Your task to perform on an android device: turn pop-ups off in chrome Image 0: 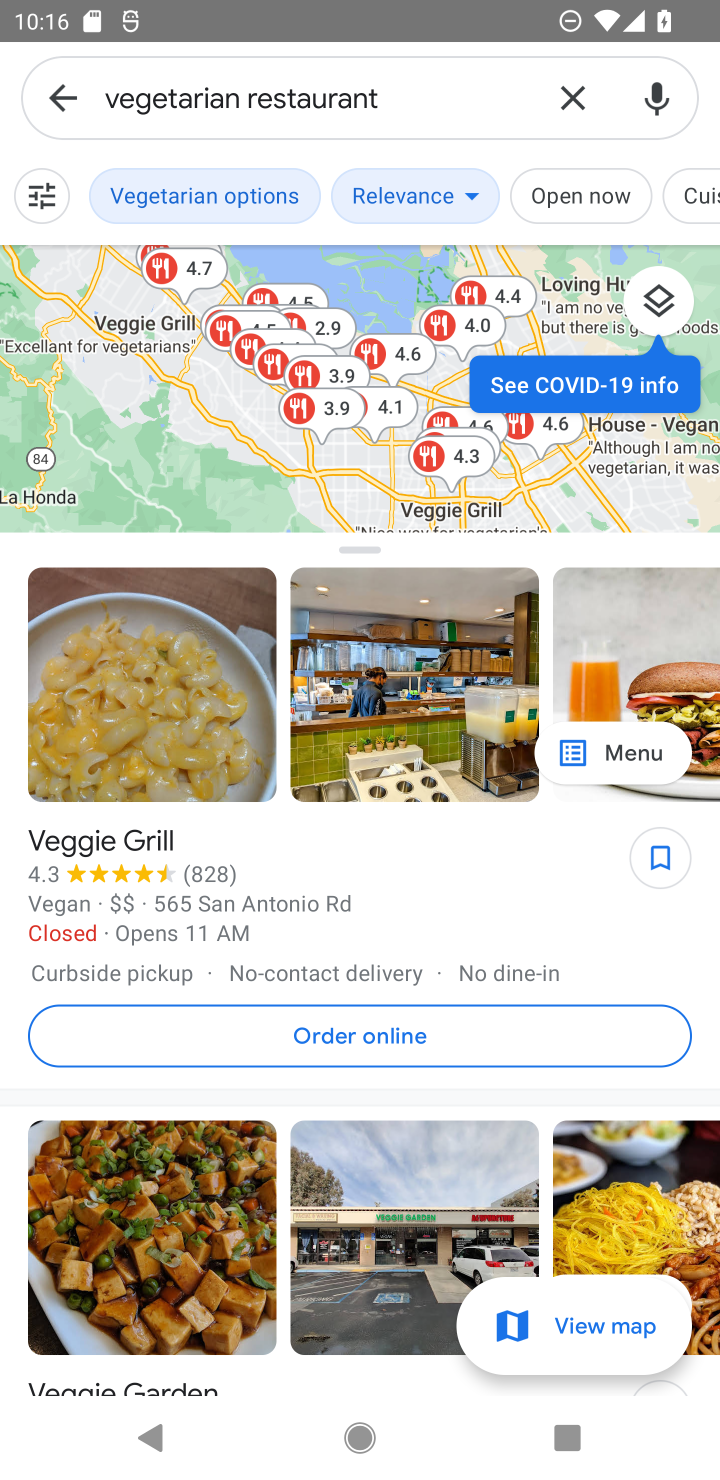
Step 0: press home button
Your task to perform on an android device: turn pop-ups off in chrome Image 1: 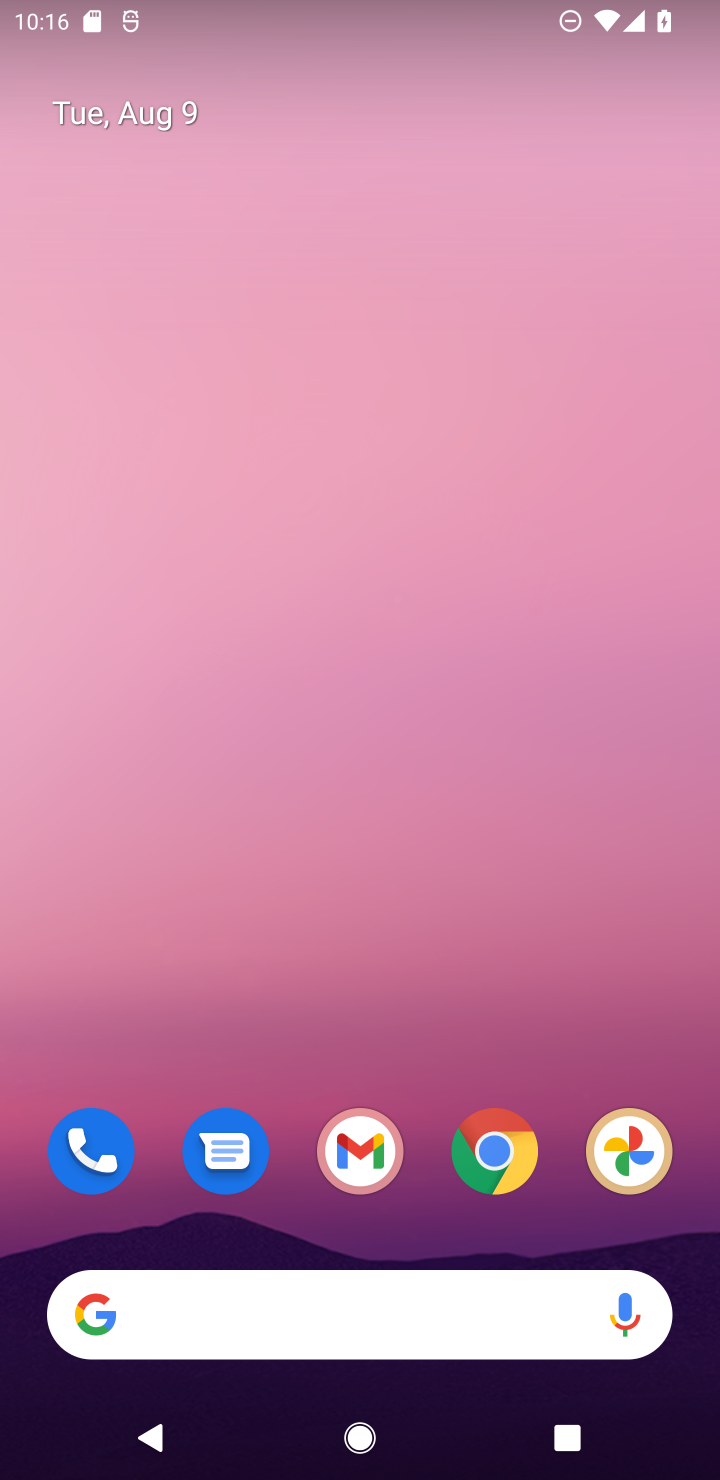
Step 1: press home button
Your task to perform on an android device: turn pop-ups off in chrome Image 2: 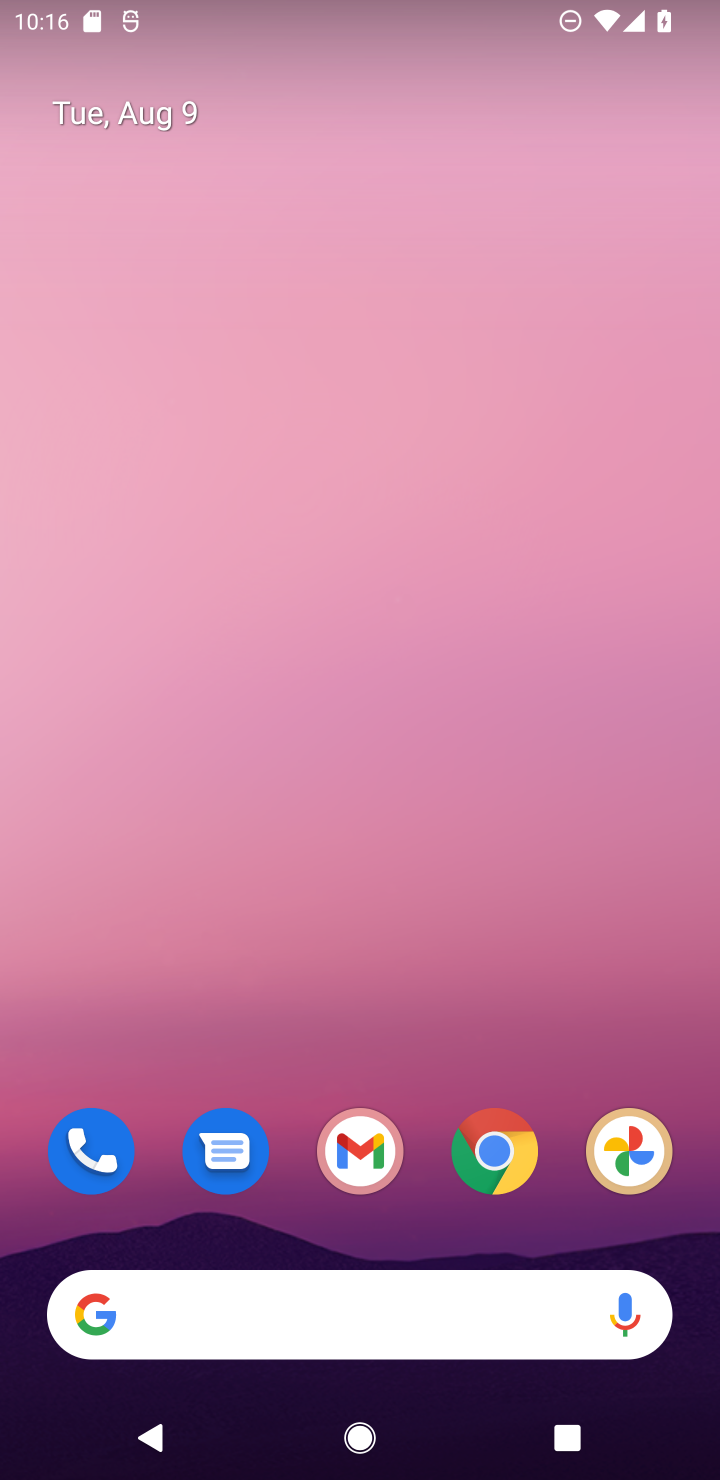
Step 2: click (496, 1151)
Your task to perform on an android device: turn pop-ups off in chrome Image 3: 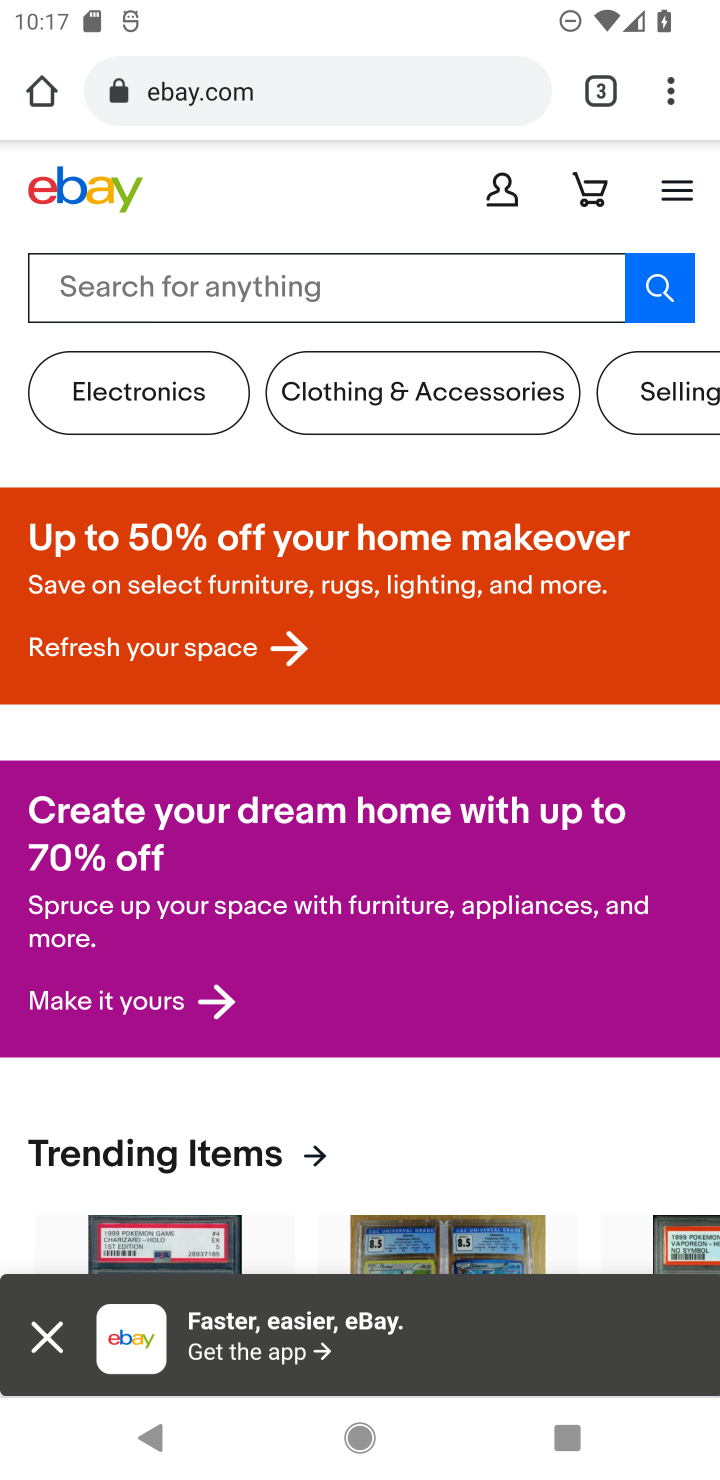
Step 3: click (673, 96)
Your task to perform on an android device: turn pop-ups off in chrome Image 4: 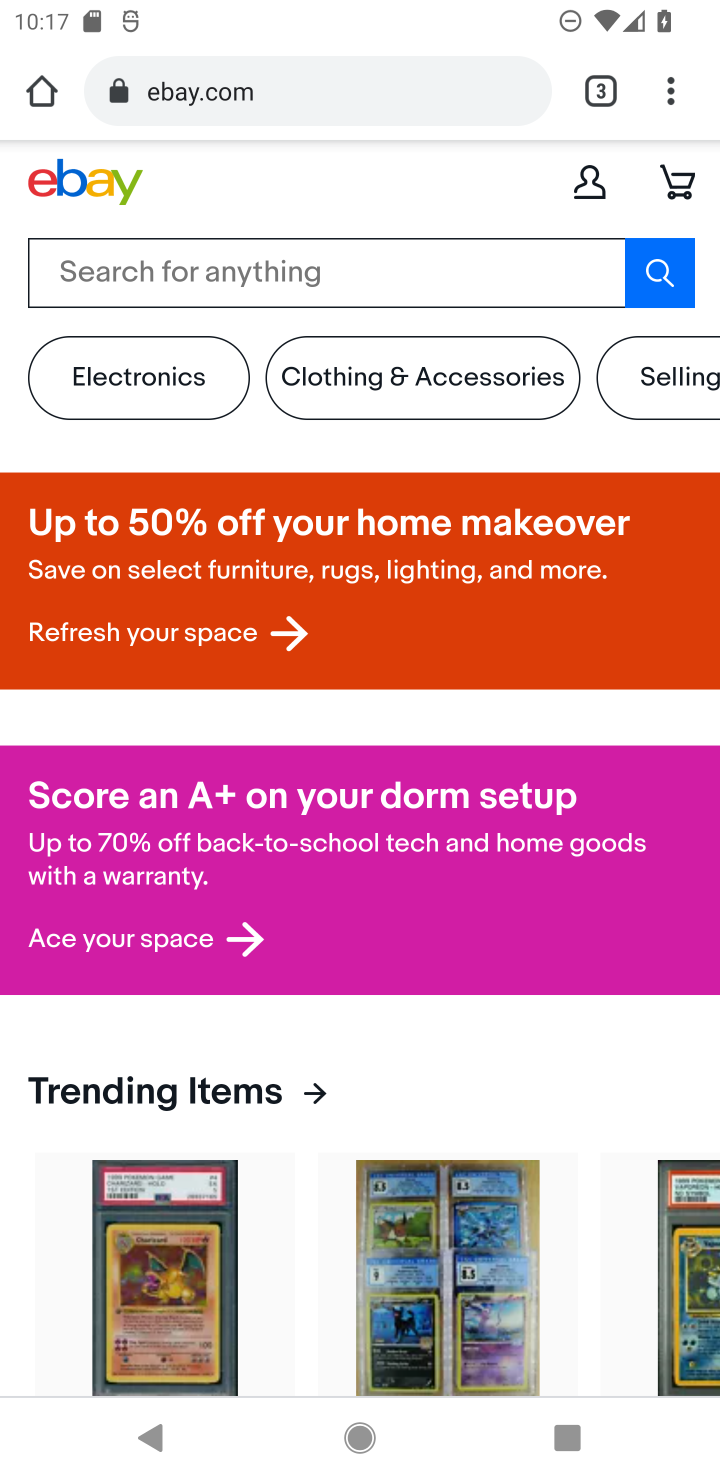
Step 4: click (659, 77)
Your task to perform on an android device: turn pop-ups off in chrome Image 5: 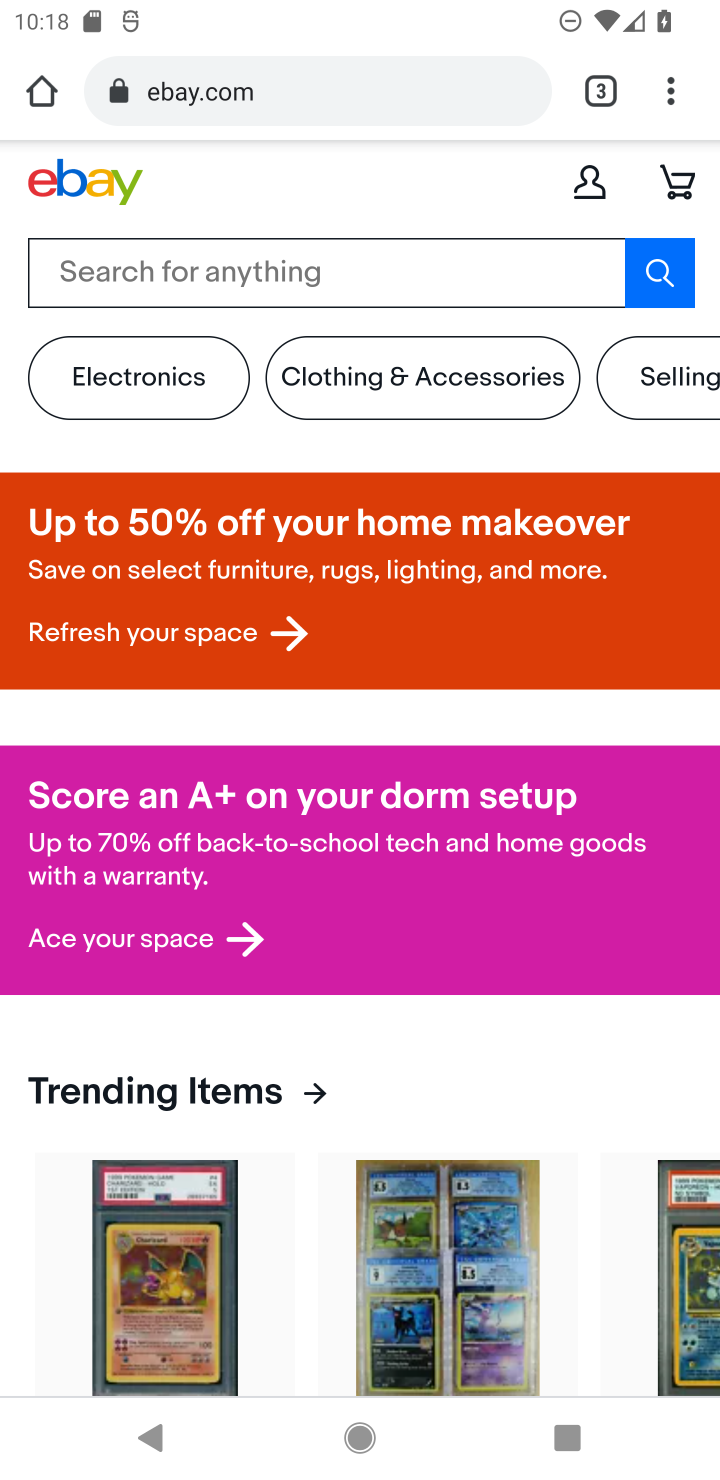
Step 5: click (671, 82)
Your task to perform on an android device: turn pop-ups off in chrome Image 6: 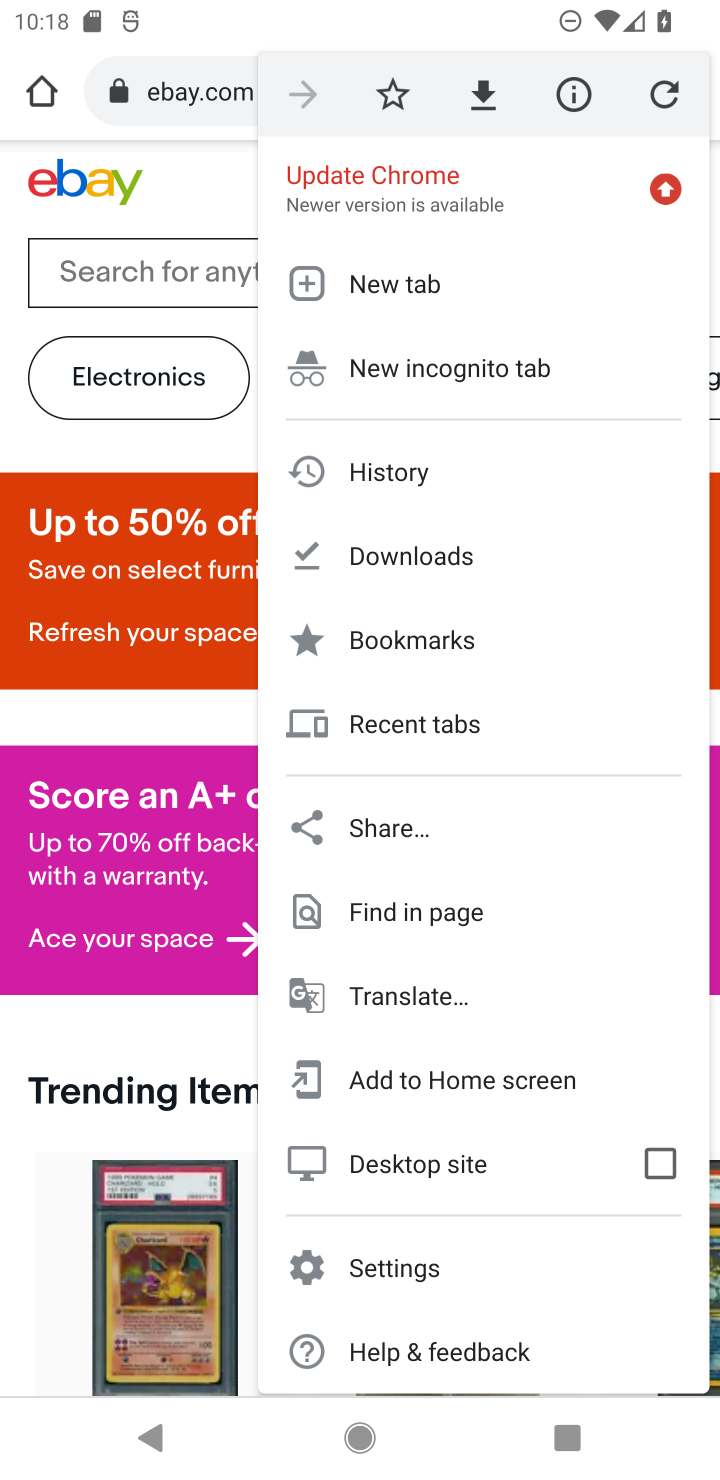
Step 6: click (424, 1268)
Your task to perform on an android device: turn pop-ups off in chrome Image 7: 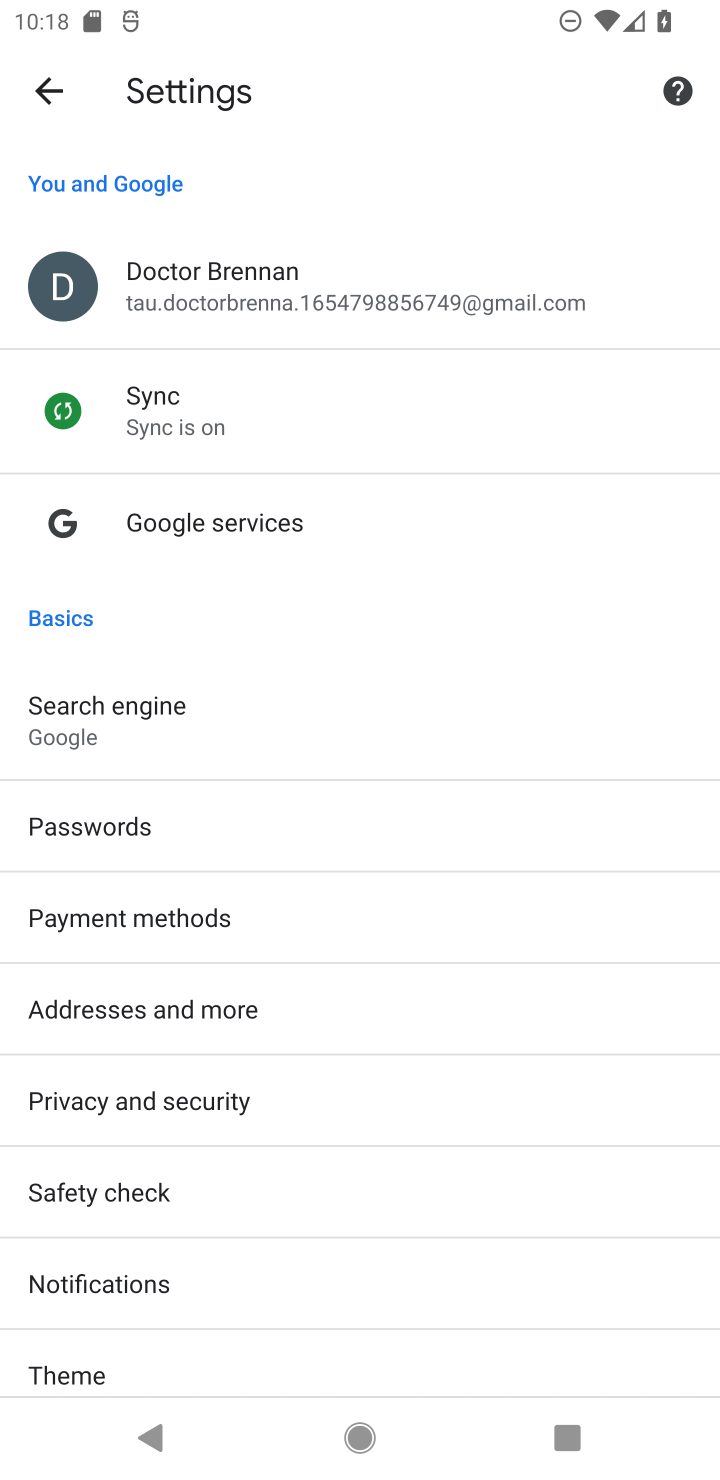
Step 7: drag from (185, 1277) to (205, 763)
Your task to perform on an android device: turn pop-ups off in chrome Image 8: 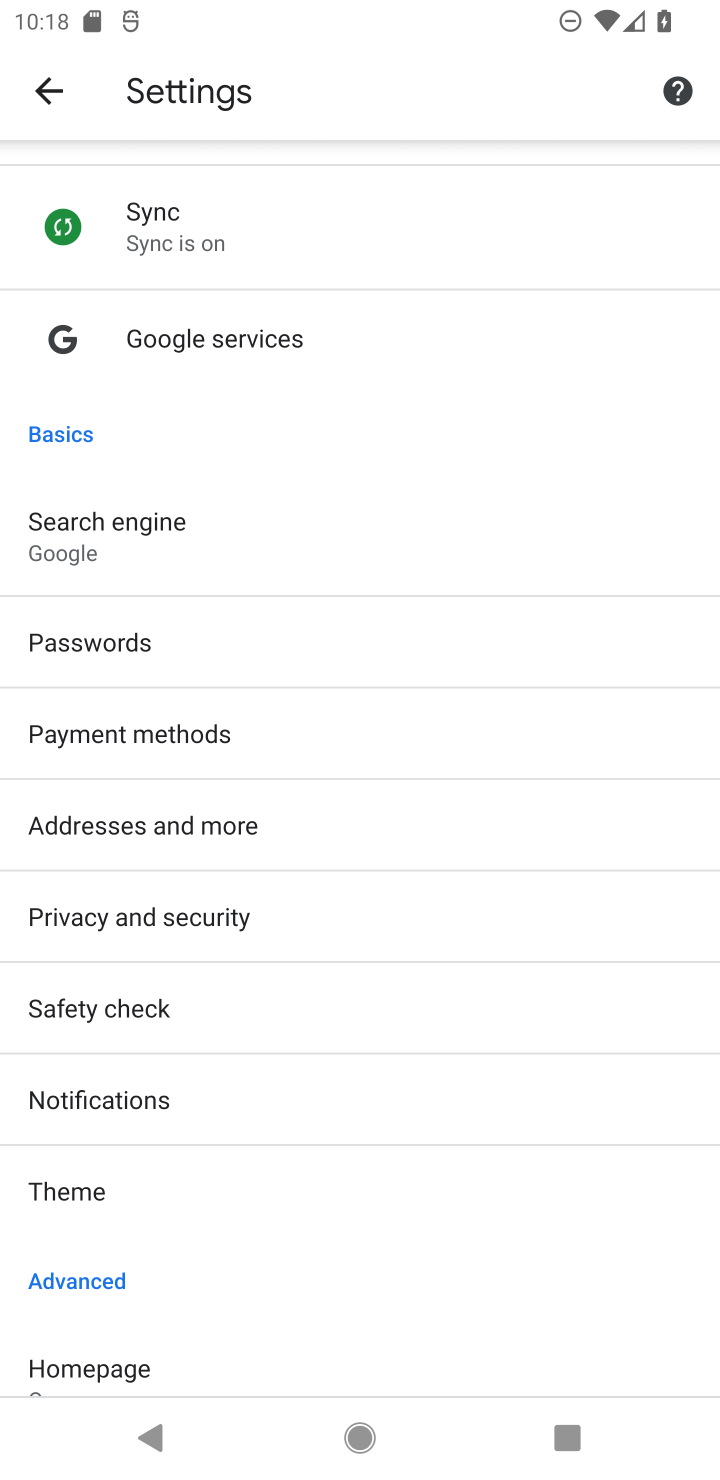
Step 8: drag from (223, 1160) to (214, 832)
Your task to perform on an android device: turn pop-ups off in chrome Image 9: 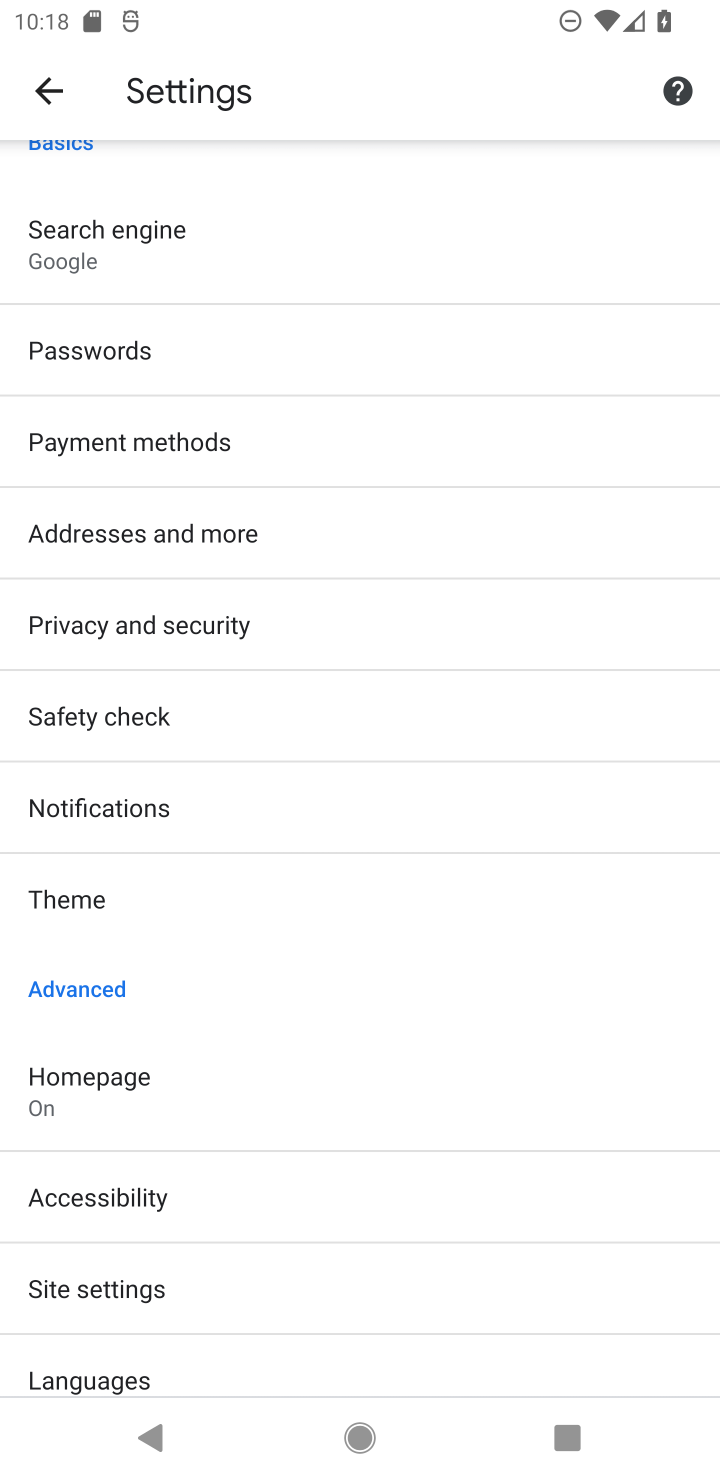
Step 9: click (111, 1285)
Your task to perform on an android device: turn pop-ups off in chrome Image 10: 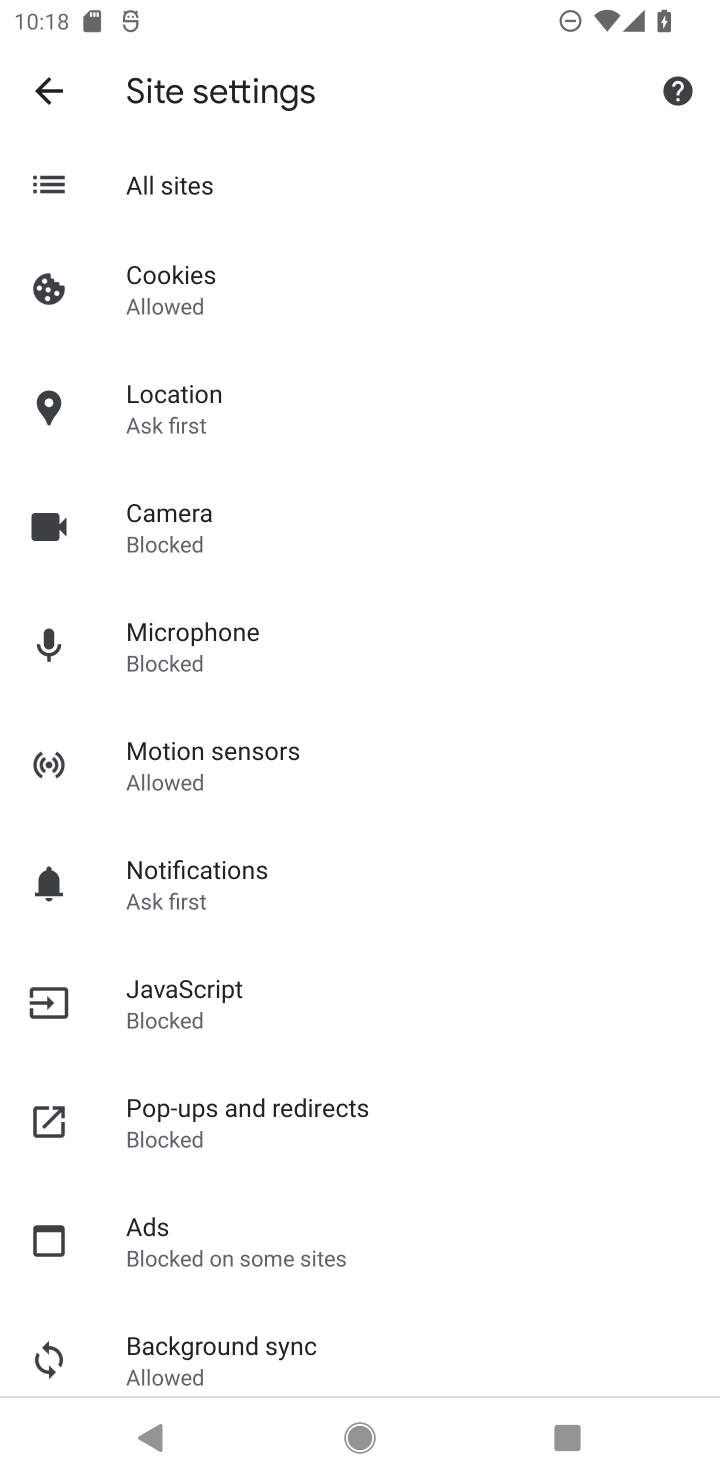
Step 10: click (253, 1131)
Your task to perform on an android device: turn pop-ups off in chrome Image 11: 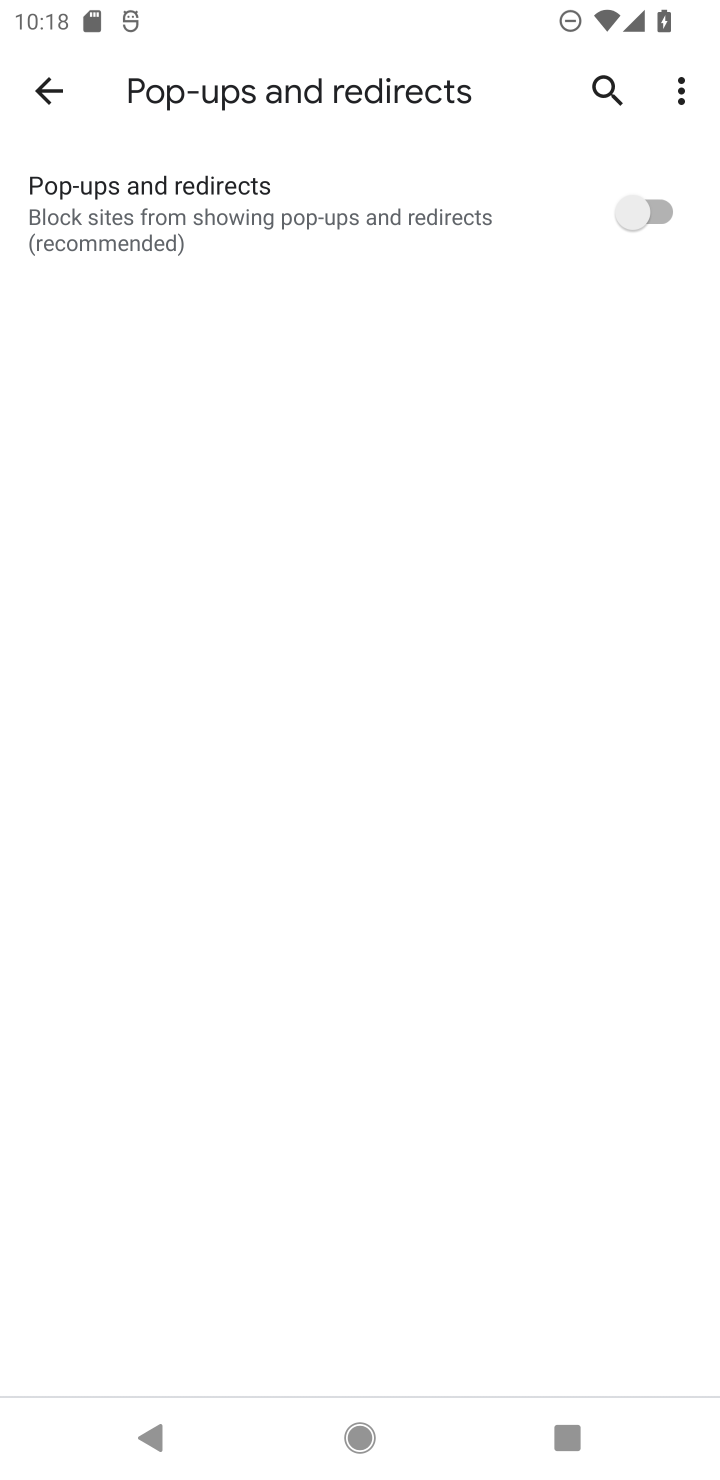
Step 11: task complete